Your task to perform on an android device: set an alarm Image 0: 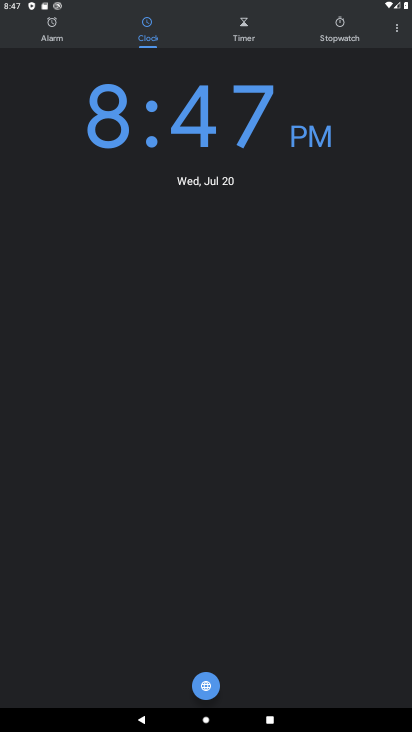
Step 0: press home button
Your task to perform on an android device: set an alarm Image 1: 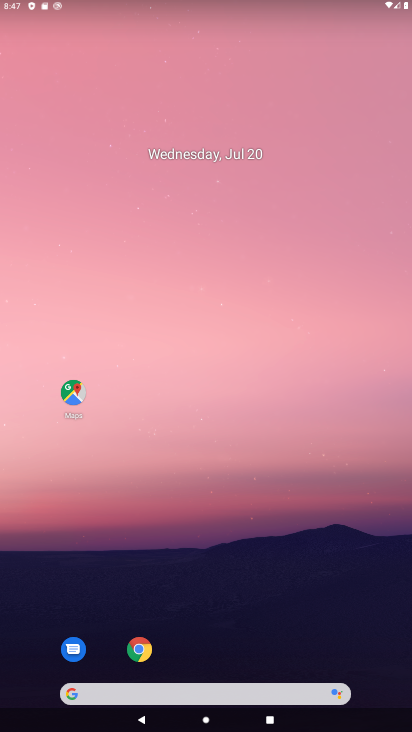
Step 1: drag from (192, 680) to (162, 273)
Your task to perform on an android device: set an alarm Image 2: 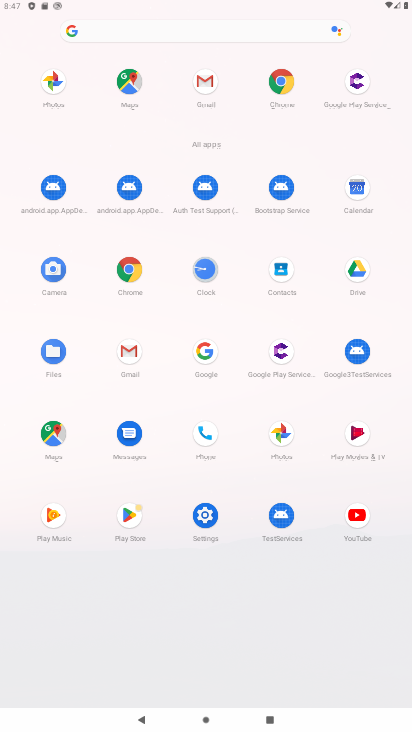
Step 2: click (208, 267)
Your task to perform on an android device: set an alarm Image 3: 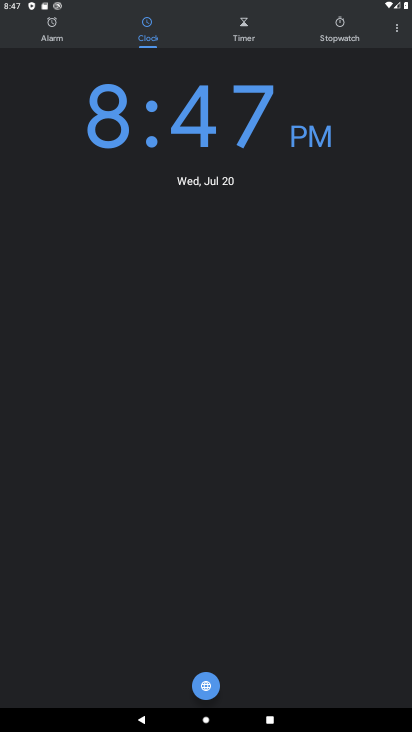
Step 3: click (49, 34)
Your task to perform on an android device: set an alarm Image 4: 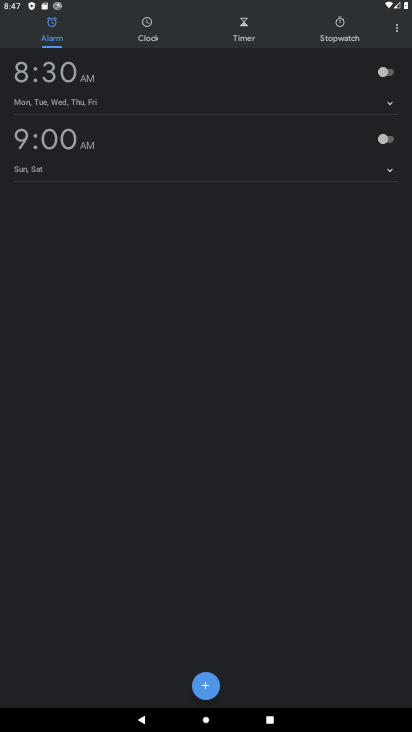
Step 4: click (205, 689)
Your task to perform on an android device: set an alarm Image 5: 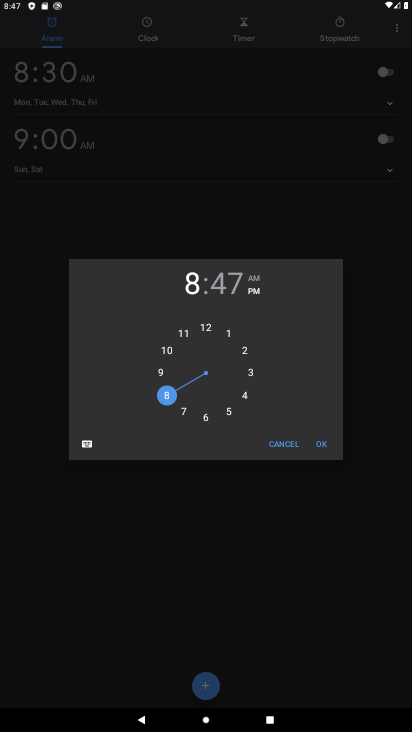
Step 5: click (319, 442)
Your task to perform on an android device: set an alarm Image 6: 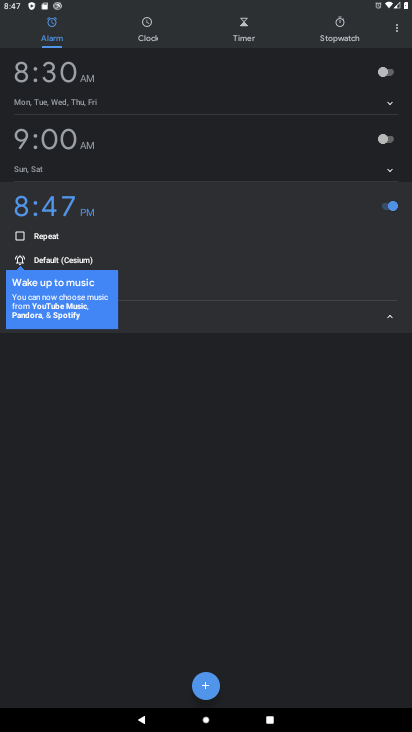
Step 6: task complete